Your task to perform on an android device: Go to Yahoo.com Image 0: 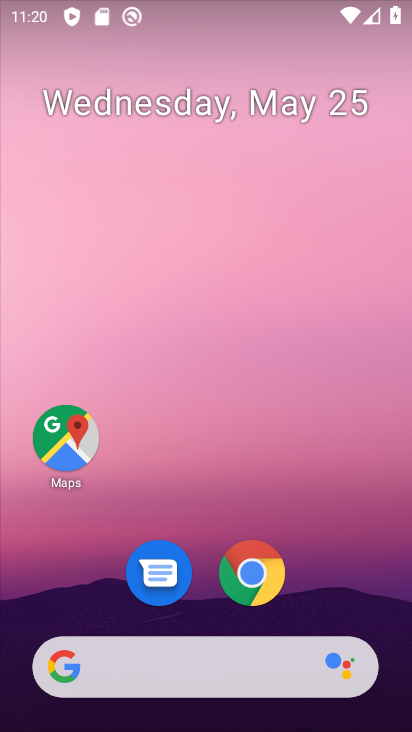
Step 0: click (243, 562)
Your task to perform on an android device: Go to Yahoo.com Image 1: 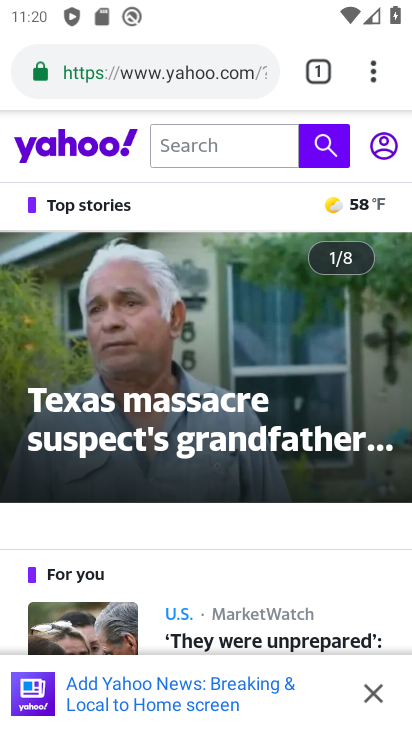
Step 1: task complete